Your task to perform on an android device: Do I have any events this weekend? Image 0: 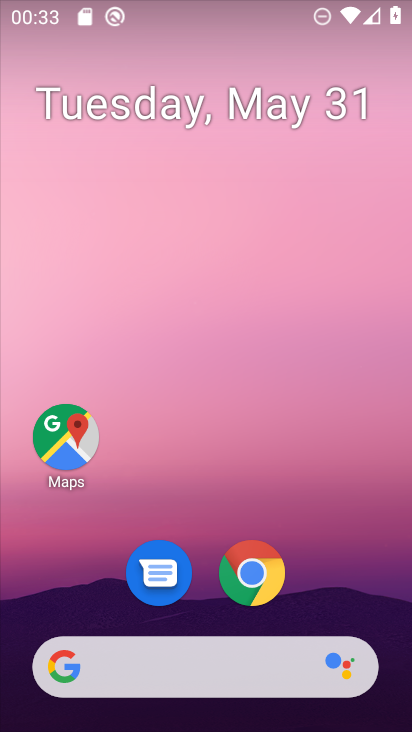
Step 0: drag from (271, 42) to (217, 1)
Your task to perform on an android device: Do I have any events this weekend? Image 1: 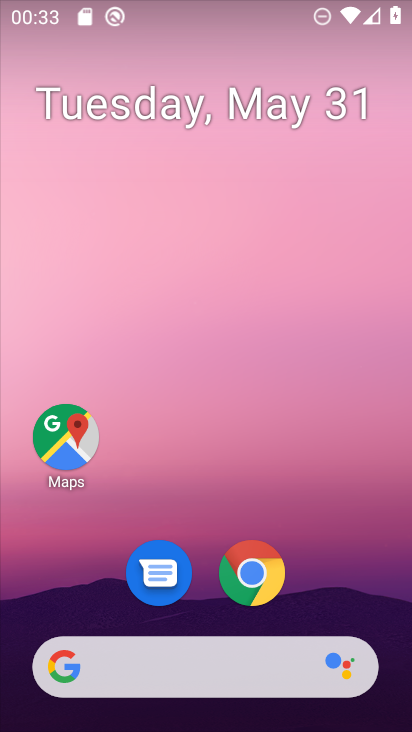
Step 1: drag from (217, 729) to (45, 15)
Your task to perform on an android device: Do I have any events this weekend? Image 2: 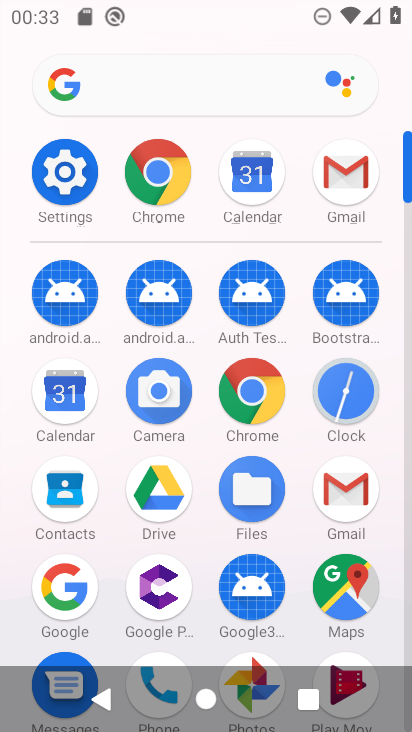
Step 2: click (70, 423)
Your task to perform on an android device: Do I have any events this weekend? Image 3: 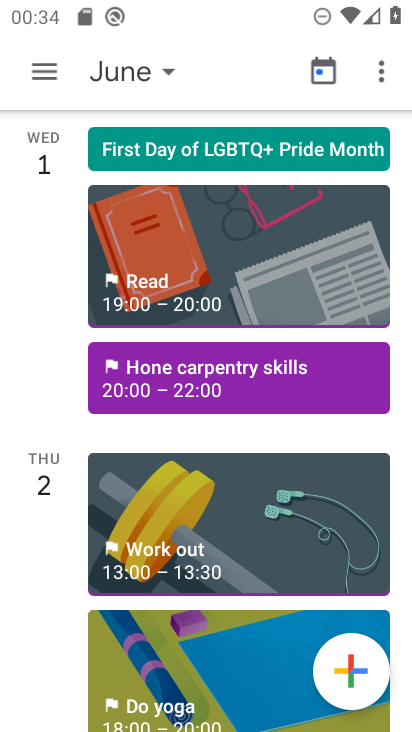
Step 3: click (119, 85)
Your task to perform on an android device: Do I have any events this weekend? Image 4: 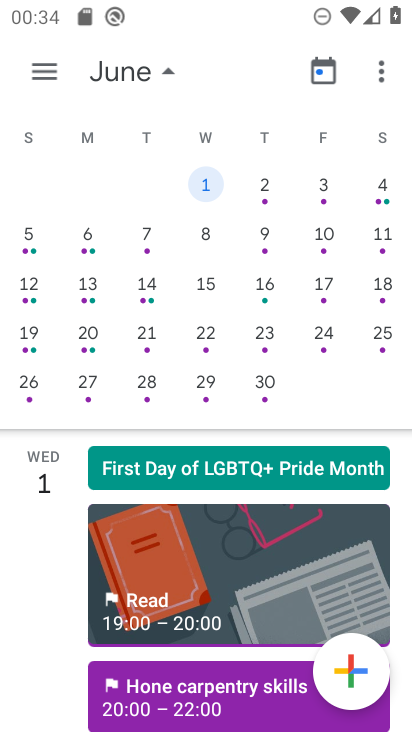
Step 4: click (376, 190)
Your task to perform on an android device: Do I have any events this weekend? Image 5: 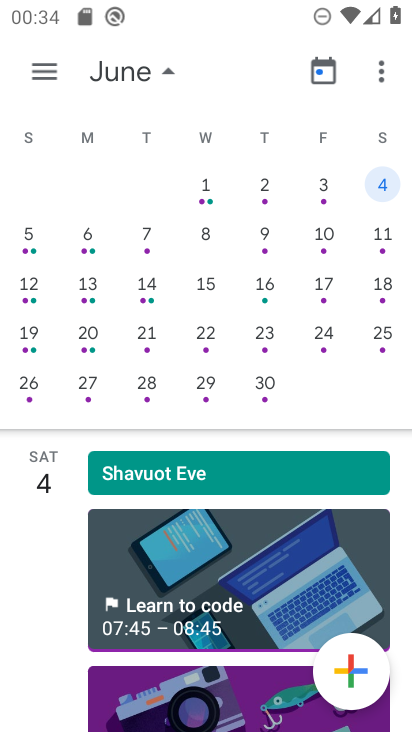
Step 5: task complete